Your task to perform on an android device: install app "Microsoft Excel" Image 0: 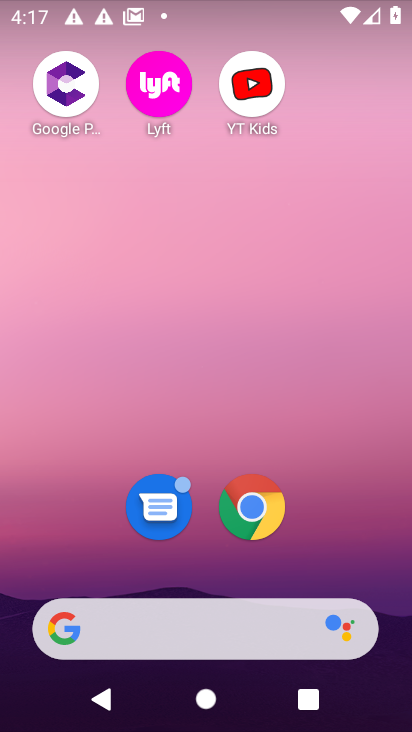
Step 0: drag from (323, 481) to (285, 9)
Your task to perform on an android device: install app "Microsoft Excel" Image 1: 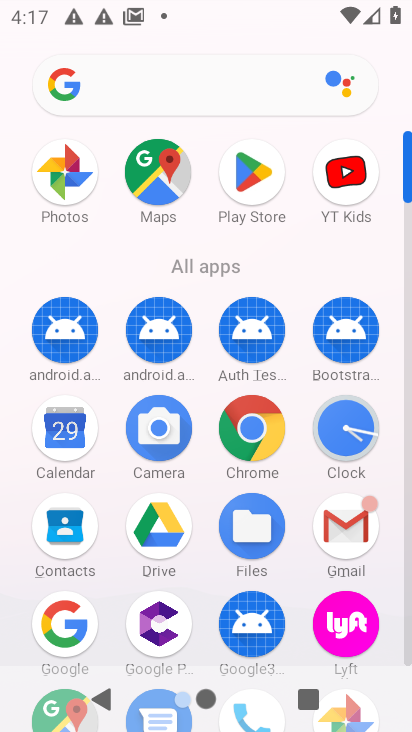
Step 1: click (235, 182)
Your task to perform on an android device: install app "Microsoft Excel" Image 2: 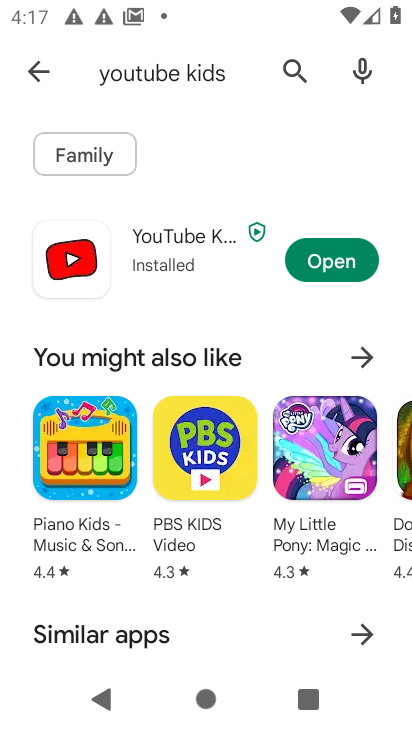
Step 2: click (309, 59)
Your task to perform on an android device: install app "Microsoft Excel" Image 3: 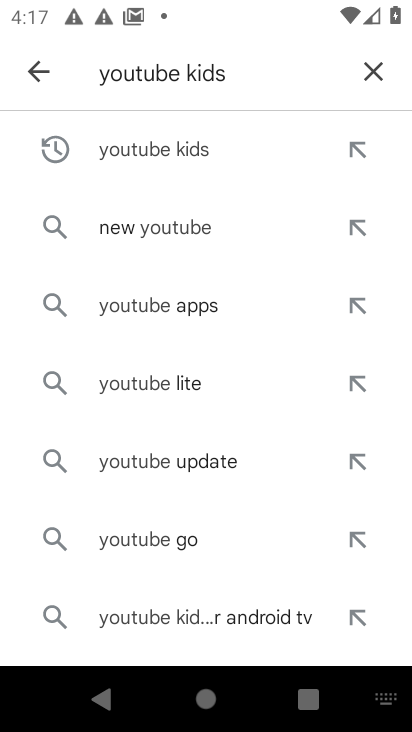
Step 3: click (379, 66)
Your task to perform on an android device: install app "Microsoft Excel" Image 4: 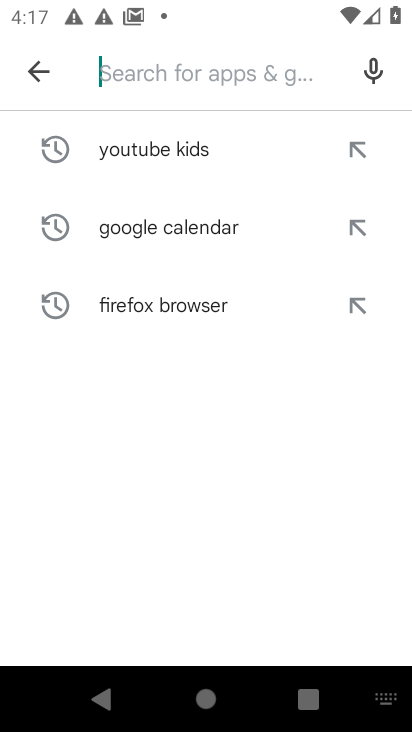
Step 4: type "Microsoft Excel"
Your task to perform on an android device: install app "Microsoft Excel" Image 5: 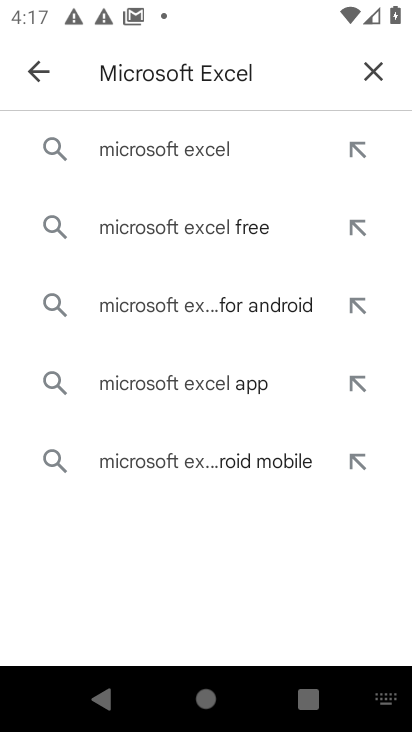
Step 5: click (176, 165)
Your task to perform on an android device: install app "Microsoft Excel" Image 6: 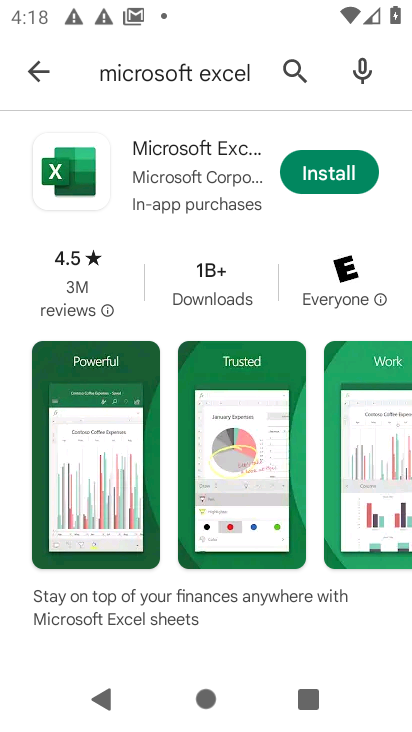
Step 6: click (303, 181)
Your task to perform on an android device: install app "Microsoft Excel" Image 7: 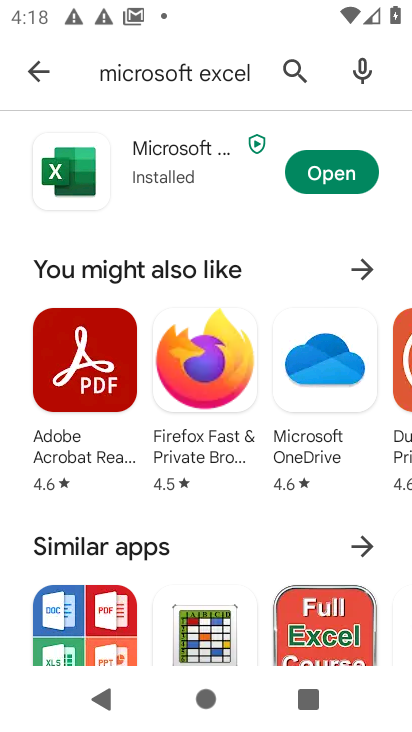
Step 7: task complete